Your task to perform on an android device: Check the weather Image 0: 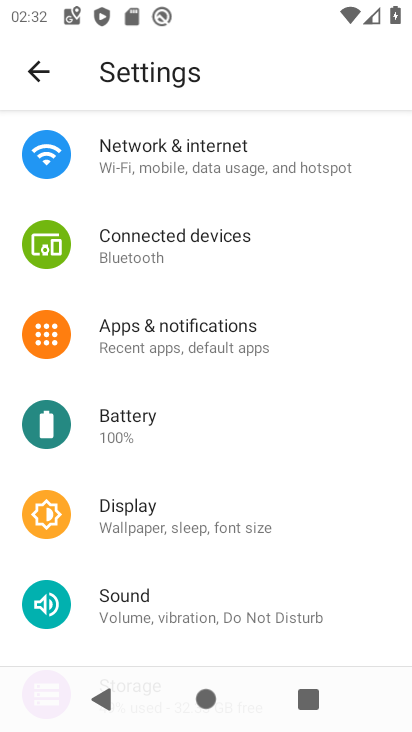
Step 0: press home button
Your task to perform on an android device: Check the weather Image 1: 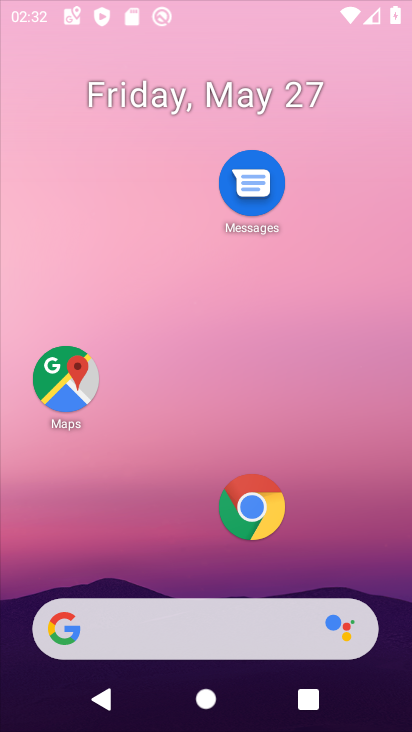
Step 1: drag from (158, 601) to (221, 260)
Your task to perform on an android device: Check the weather Image 2: 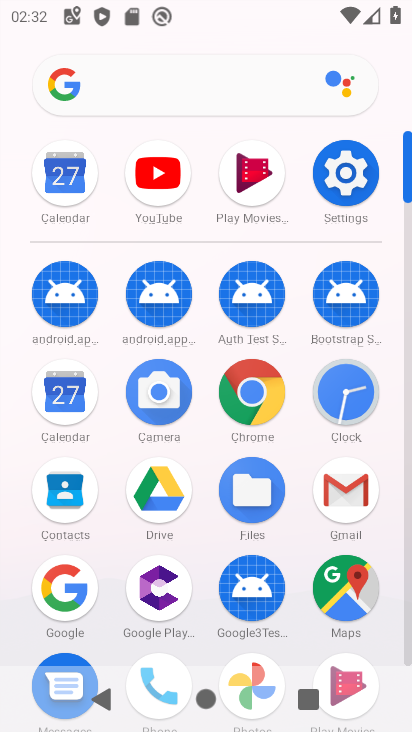
Step 2: click (167, 93)
Your task to perform on an android device: Check the weather Image 3: 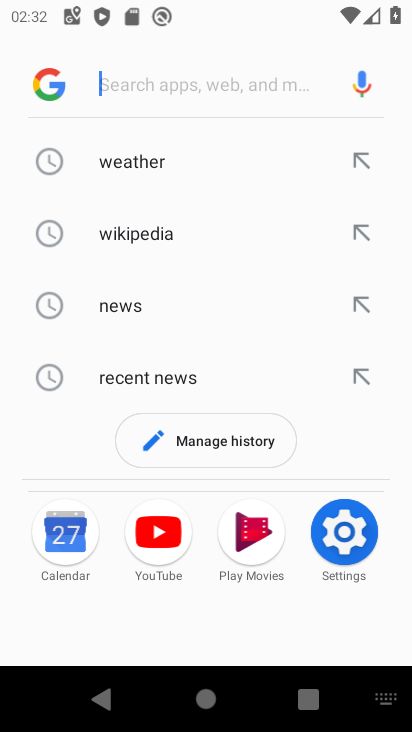
Step 3: click (129, 156)
Your task to perform on an android device: Check the weather Image 4: 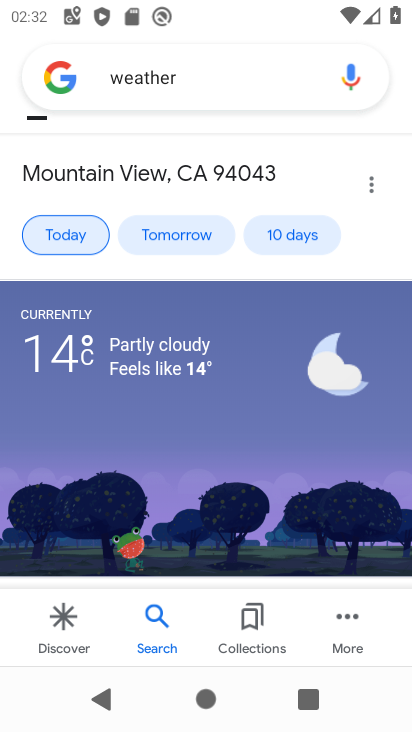
Step 4: click (278, 268)
Your task to perform on an android device: Check the weather Image 5: 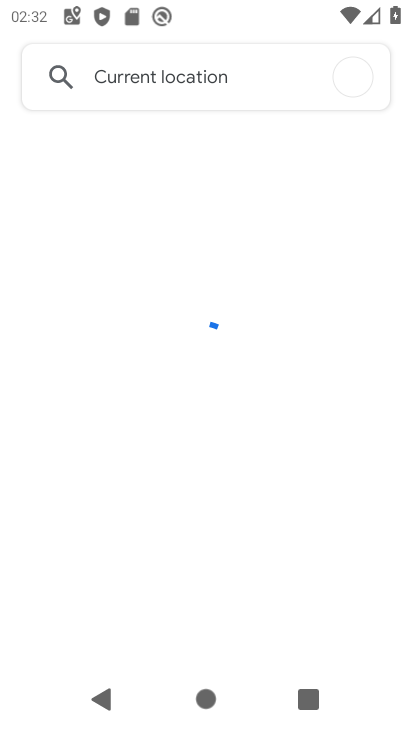
Step 5: task complete